Your task to perform on an android device: Is it going to rain this weekend? Image 0: 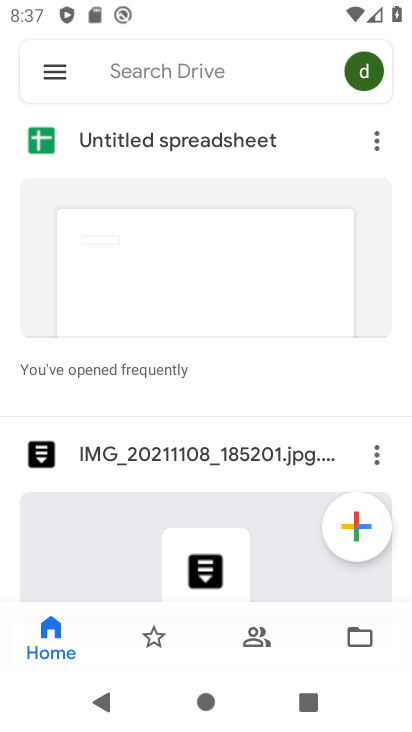
Step 0: press home button
Your task to perform on an android device: Is it going to rain this weekend? Image 1: 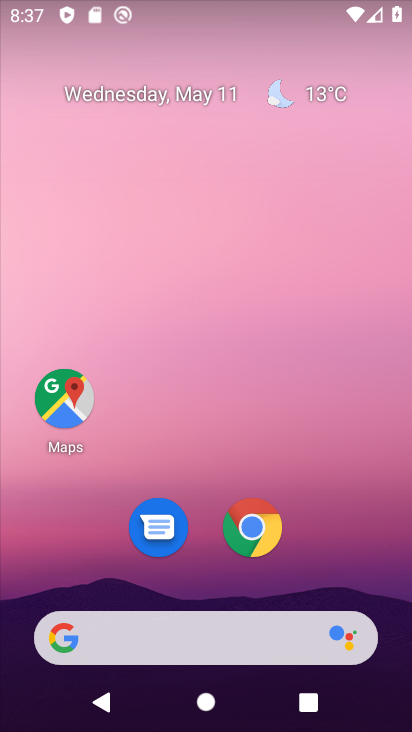
Step 1: click (252, 544)
Your task to perform on an android device: Is it going to rain this weekend? Image 2: 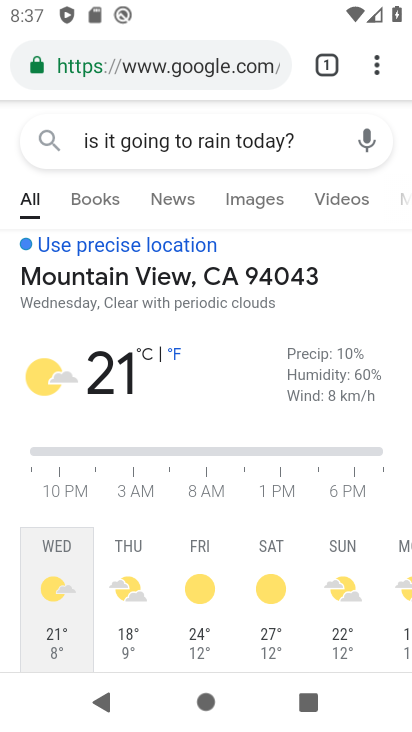
Step 2: type "Is it going to rain this weekend"
Your task to perform on an android device: Is it going to rain this weekend? Image 3: 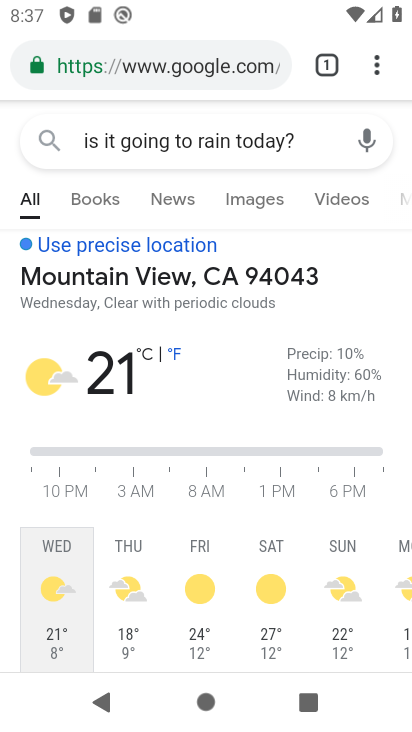
Step 3: click (212, 62)
Your task to perform on an android device: Is it going to rain this weekend? Image 4: 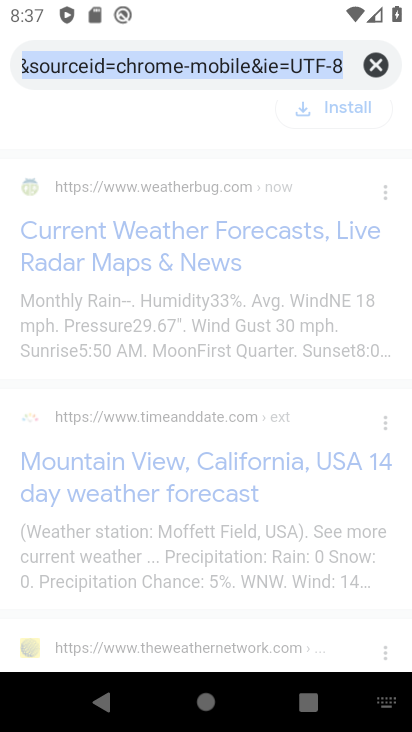
Step 4: type "Is it going to rain this weekend"
Your task to perform on an android device: Is it going to rain this weekend? Image 5: 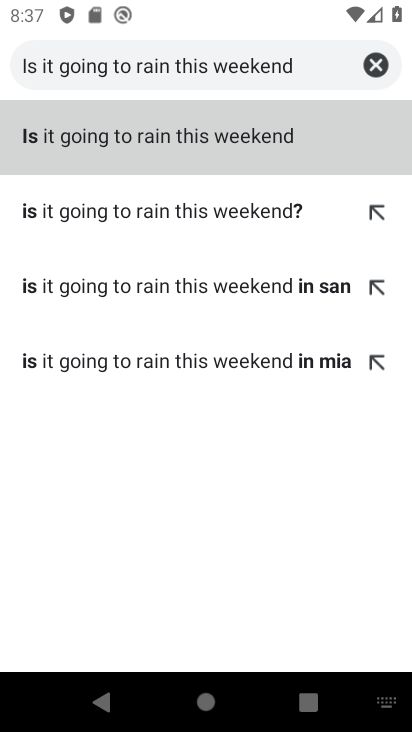
Step 5: click (166, 141)
Your task to perform on an android device: Is it going to rain this weekend? Image 6: 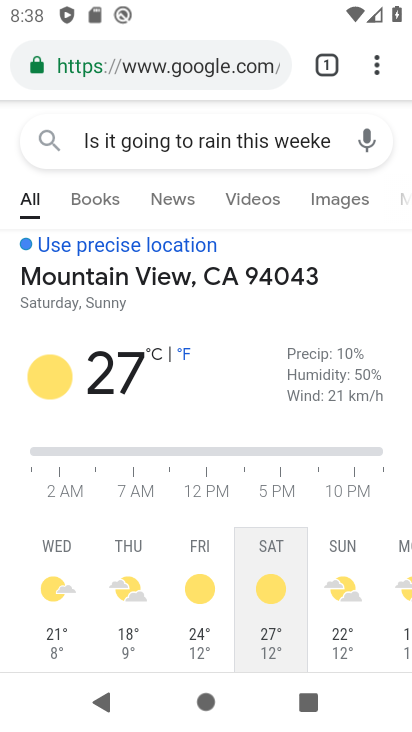
Step 6: task complete